Your task to perform on an android device: open device folders in google photos Image 0: 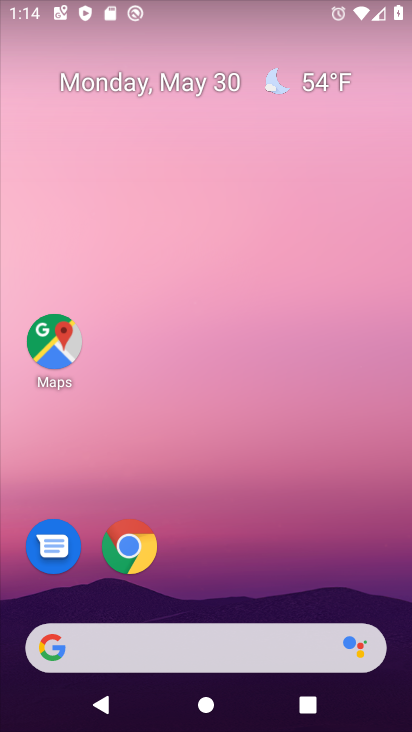
Step 0: press home button
Your task to perform on an android device: open device folders in google photos Image 1: 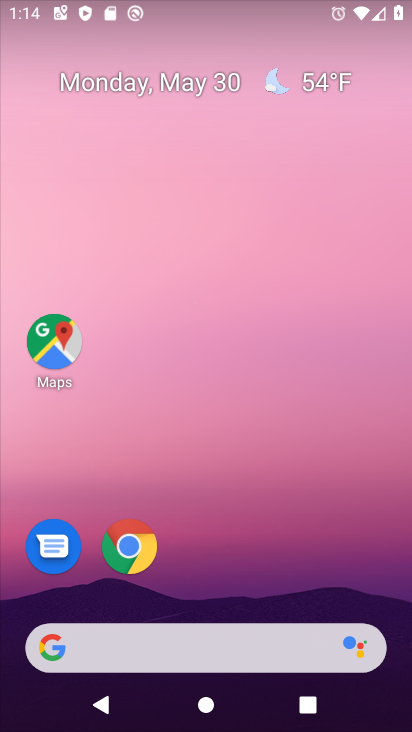
Step 1: drag from (296, 611) to (350, 149)
Your task to perform on an android device: open device folders in google photos Image 2: 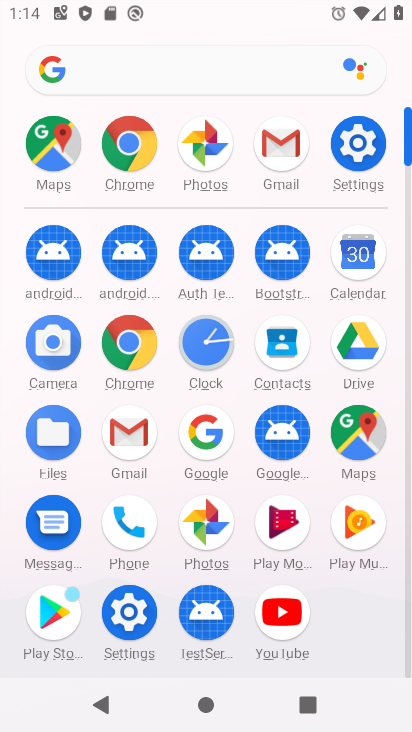
Step 2: click (200, 533)
Your task to perform on an android device: open device folders in google photos Image 3: 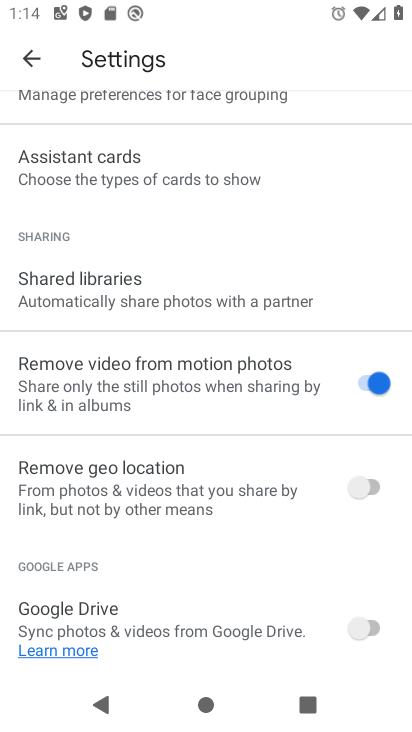
Step 3: click (23, 57)
Your task to perform on an android device: open device folders in google photos Image 4: 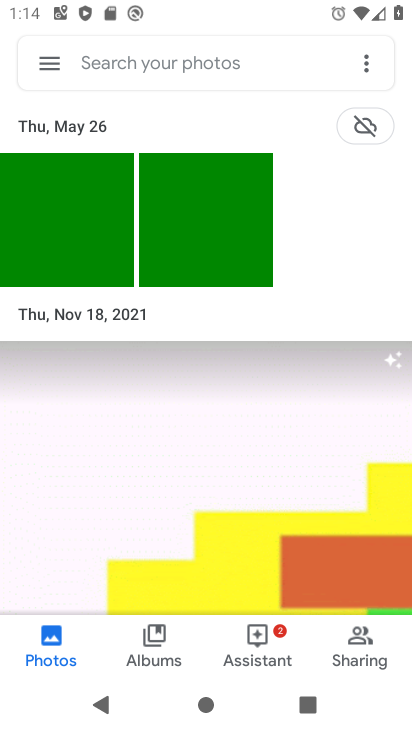
Step 4: click (50, 62)
Your task to perform on an android device: open device folders in google photos Image 5: 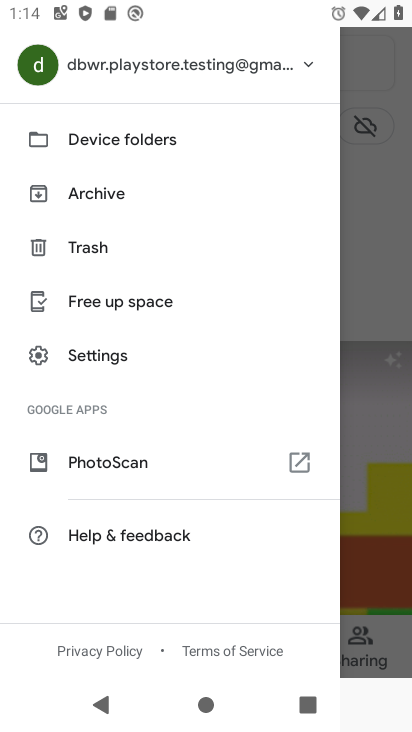
Step 5: click (106, 145)
Your task to perform on an android device: open device folders in google photos Image 6: 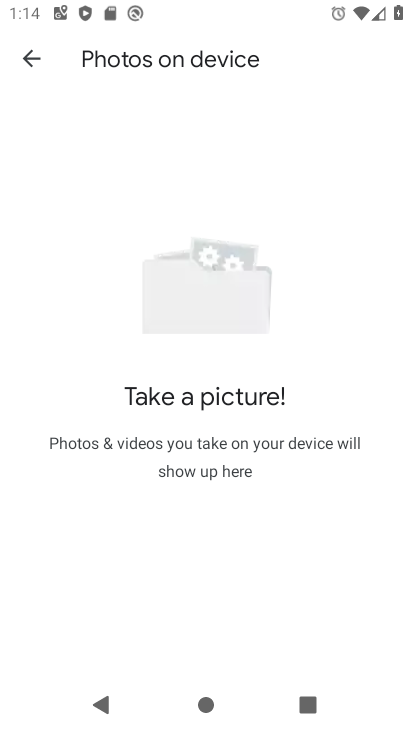
Step 6: task complete